Your task to perform on an android device: Open calendar and show me the fourth week of next month Image 0: 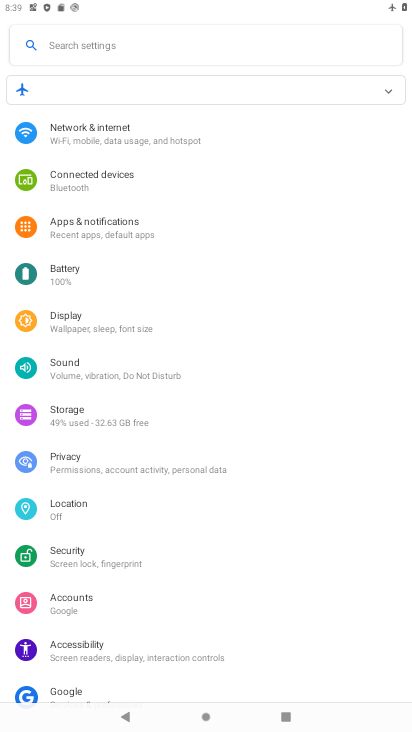
Step 0: press home button
Your task to perform on an android device: Open calendar and show me the fourth week of next month Image 1: 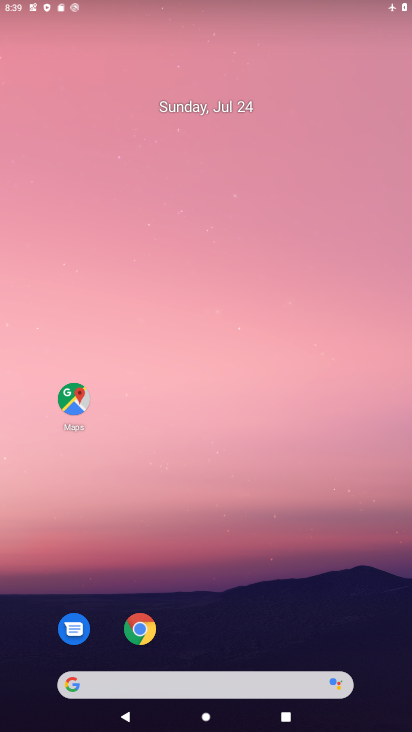
Step 1: drag from (310, 664) to (314, 166)
Your task to perform on an android device: Open calendar and show me the fourth week of next month Image 2: 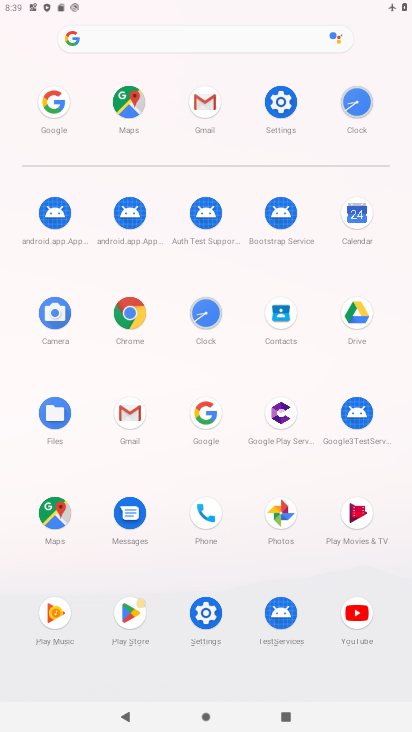
Step 2: click (360, 234)
Your task to perform on an android device: Open calendar and show me the fourth week of next month Image 3: 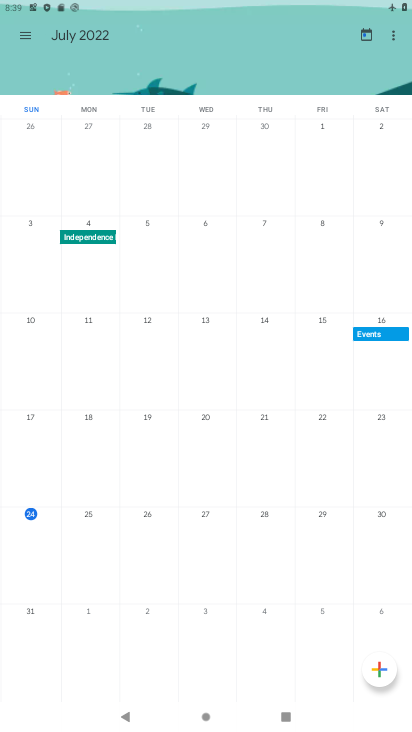
Step 3: drag from (338, 353) to (28, 331)
Your task to perform on an android device: Open calendar and show me the fourth week of next month Image 4: 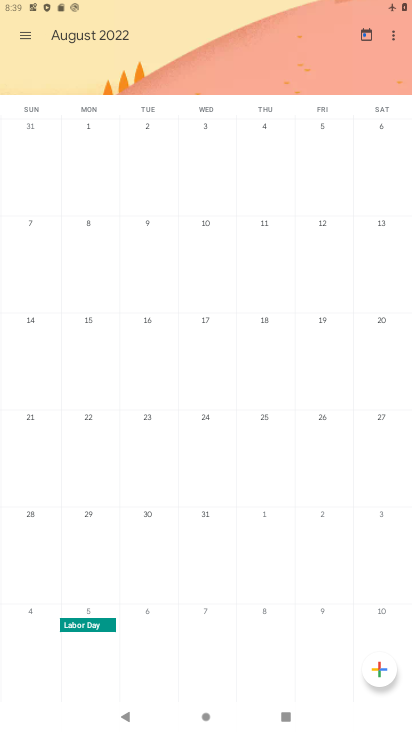
Step 4: click (30, 432)
Your task to perform on an android device: Open calendar and show me the fourth week of next month Image 5: 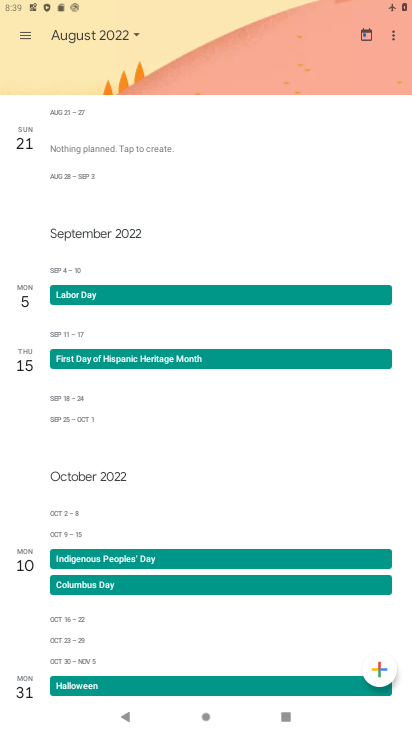
Step 5: task complete